Your task to perform on an android device: turn off javascript in the chrome app Image 0: 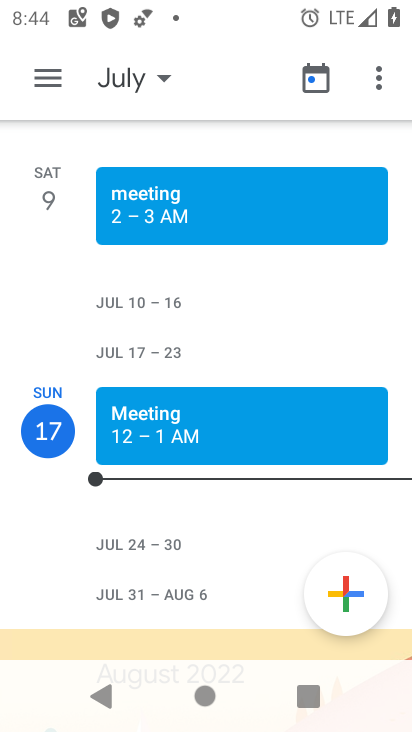
Step 0: press back button
Your task to perform on an android device: turn off javascript in the chrome app Image 1: 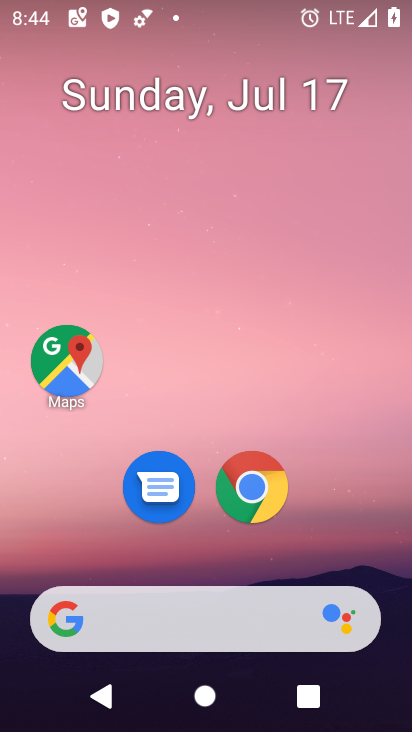
Step 1: click (253, 490)
Your task to perform on an android device: turn off javascript in the chrome app Image 2: 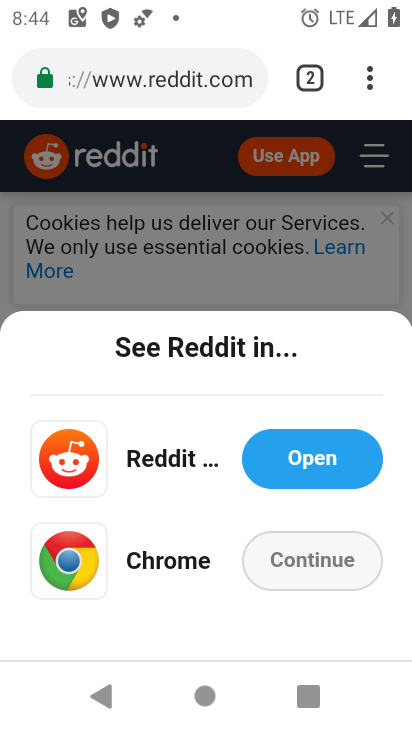
Step 2: drag from (366, 84) to (115, 553)
Your task to perform on an android device: turn off javascript in the chrome app Image 3: 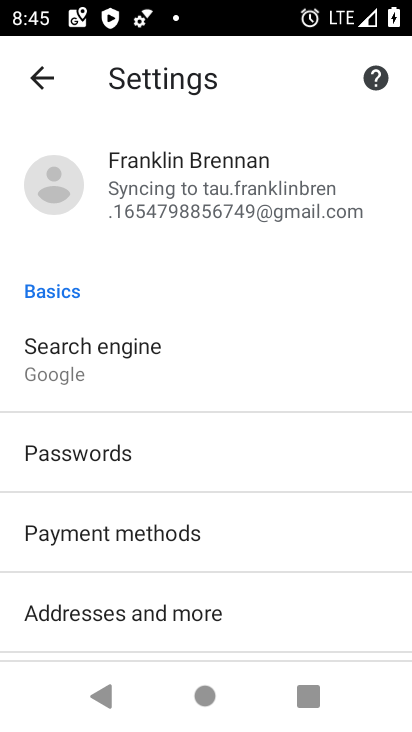
Step 3: drag from (176, 522) to (171, 63)
Your task to perform on an android device: turn off javascript in the chrome app Image 4: 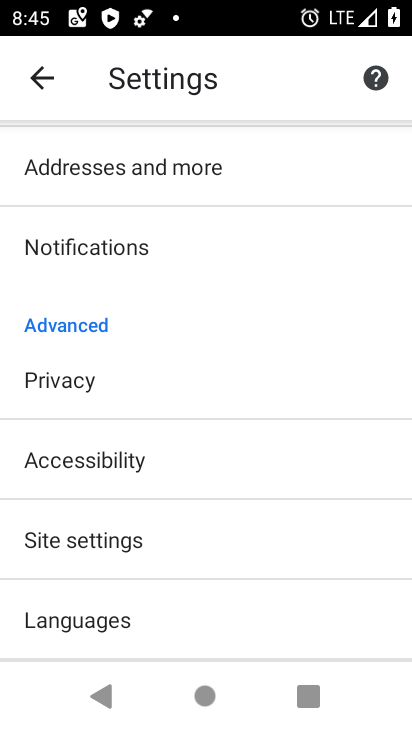
Step 4: click (78, 552)
Your task to perform on an android device: turn off javascript in the chrome app Image 5: 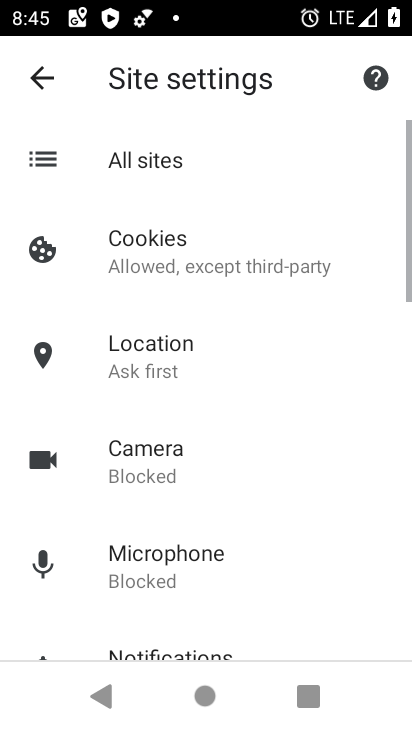
Step 5: drag from (105, 563) to (181, 96)
Your task to perform on an android device: turn off javascript in the chrome app Image 6: 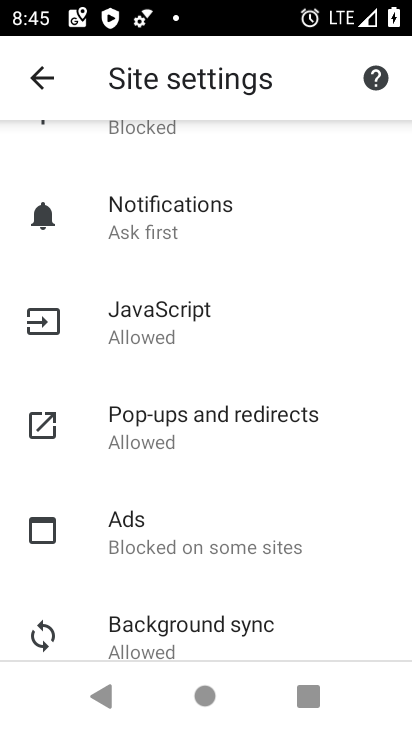
Step 6: click (133, 345)
Your task to perform on an android device: turn off javascript in the chrome app Image 7: 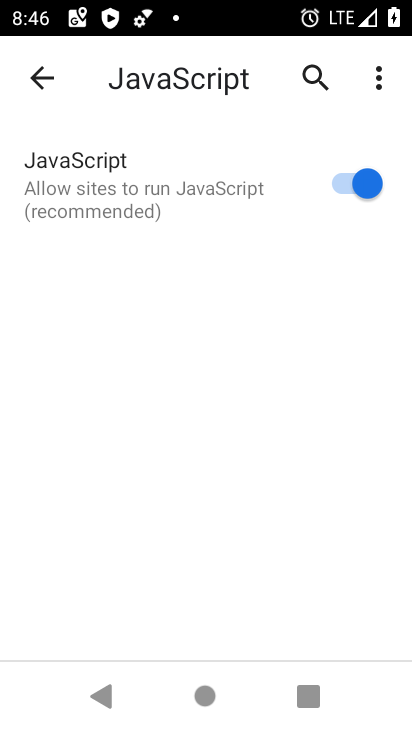
Step 7: click (358, 182)
Your task to perform on an android device: turn off javascript in the chrome app Image 8: 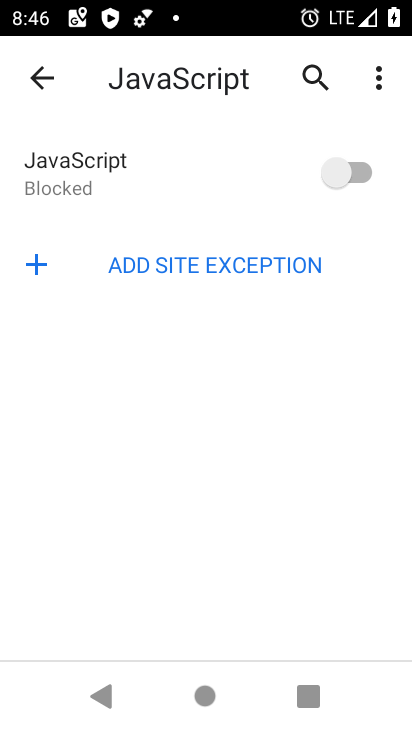
Step 8: task complete